Your task to perform on an android device: set an alarm Image 0: 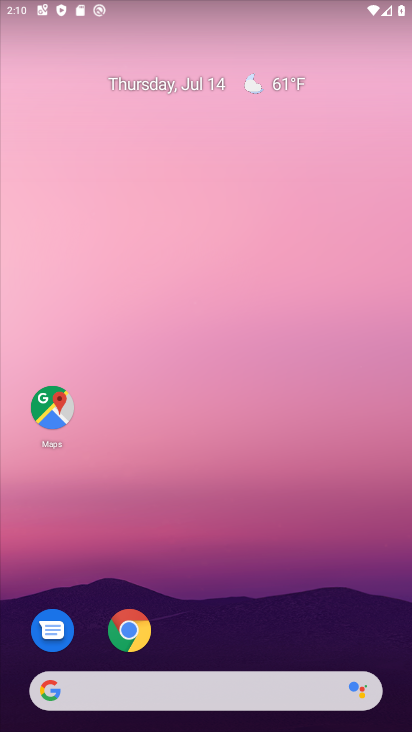
Step 0: drag from (209, 700) to (382, 46)
Your task to perform on an android device: set an alarm Image 1: 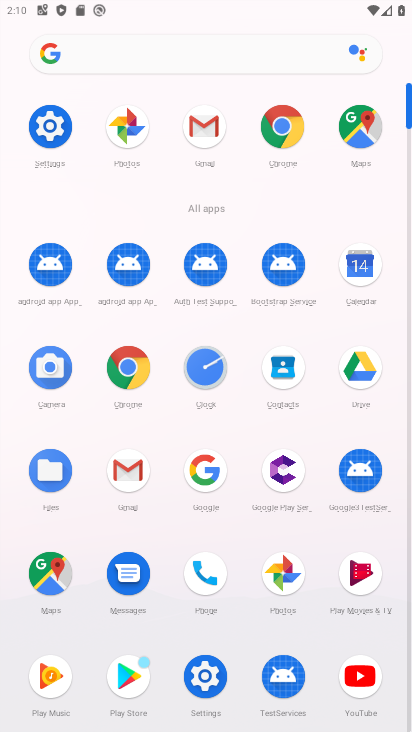
Step 1: click (203, 376)
Your task to perform on an android device: set an alarm Image 2: 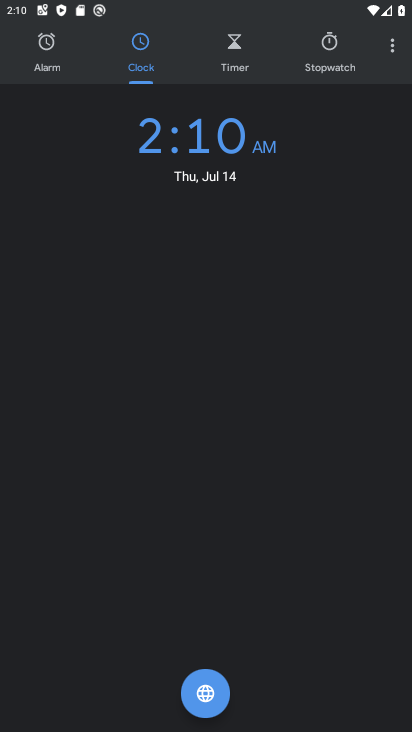
Step 2: click (38, 49)
Your task to perform on an android device: set an alarm Image 3: 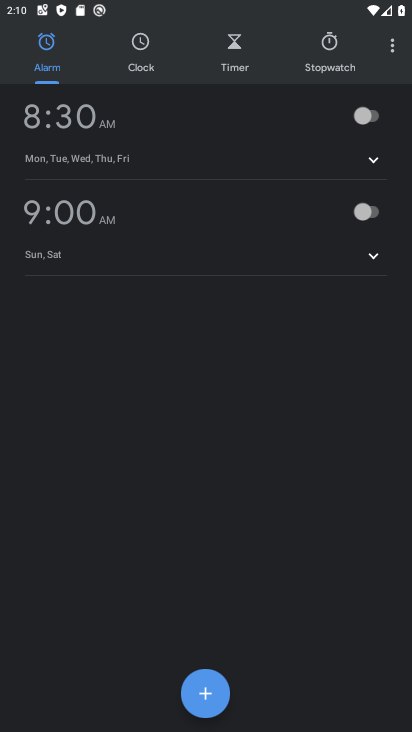
Step 3: click (375, 115)
Your task to perform on an android device: set an alarm Image 4: 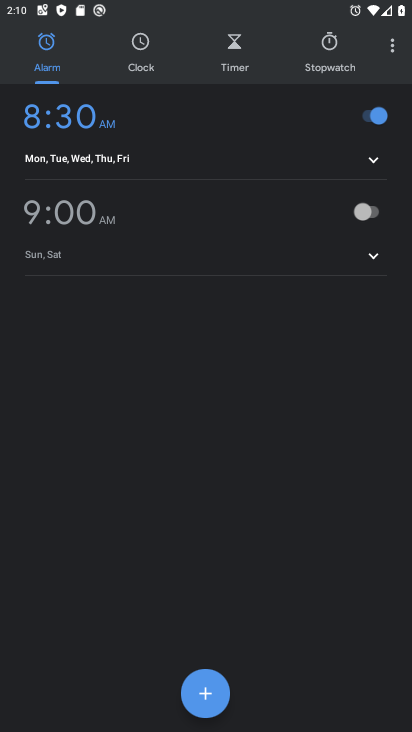
Step 4: task complete